Your task to perform on an android device: Do I have any events tomorrow? Image 0: 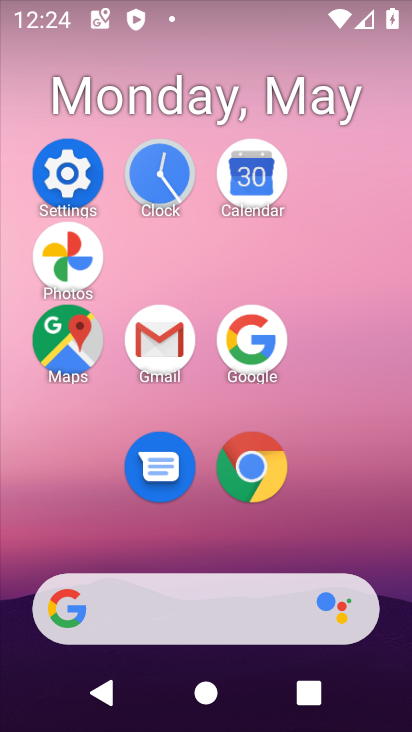
Step 0: click (257, 180)
Your task to perform on an android device: Do I have any events tomorrow? Image 1: 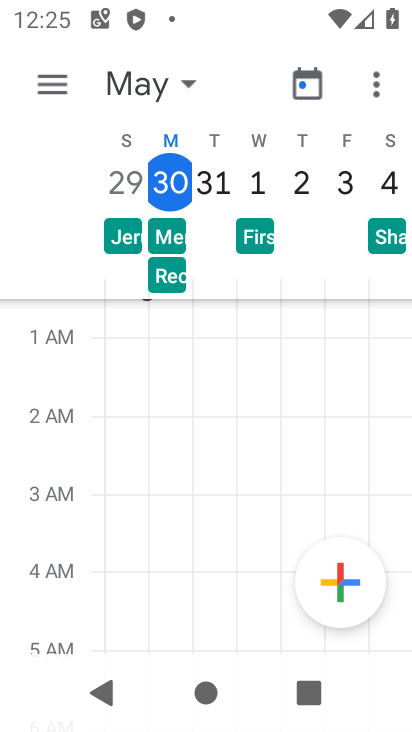
Step 1: click (226, 181)
Your task to perform on an android device: Do I have any events tomorrow? Image 2: 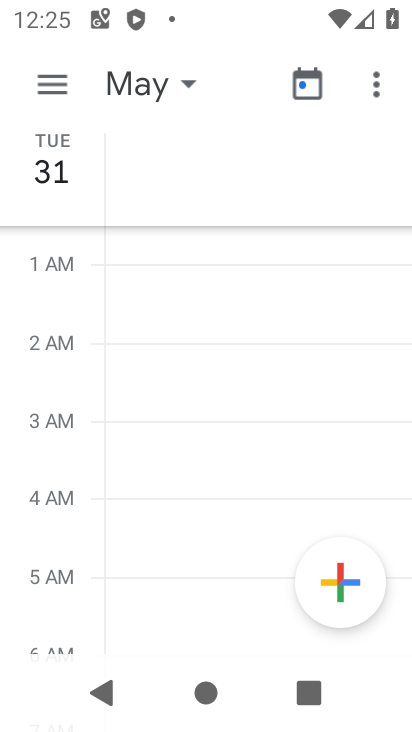
Step 2: task complete